Your task to perform on an android device: Clear the cart on newegg.com. Image 0: 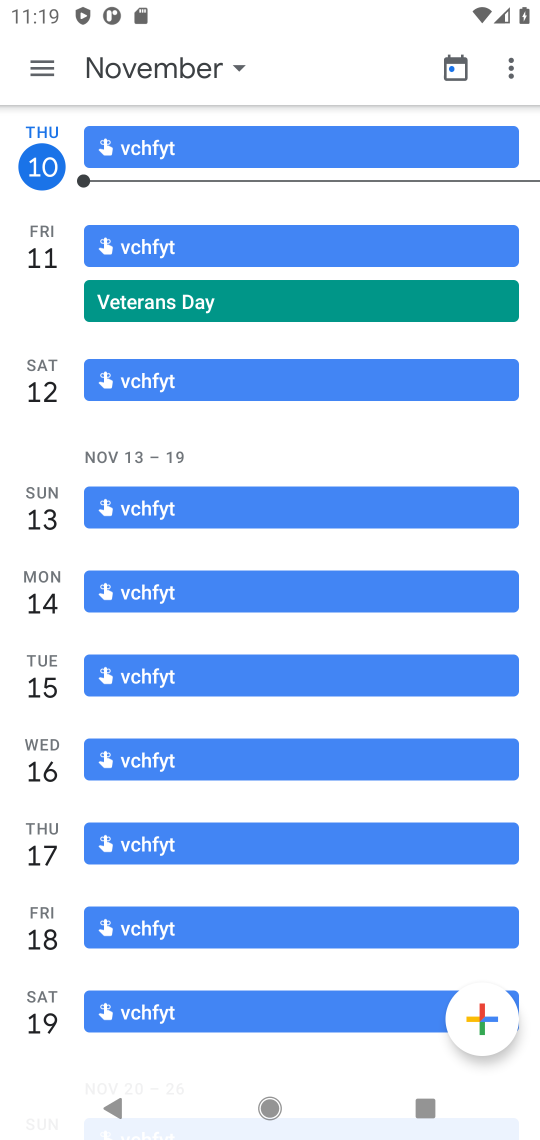
Step 0: press home button
Your task to perform on an android device: Clear the cart on newegg.com. Image 1: 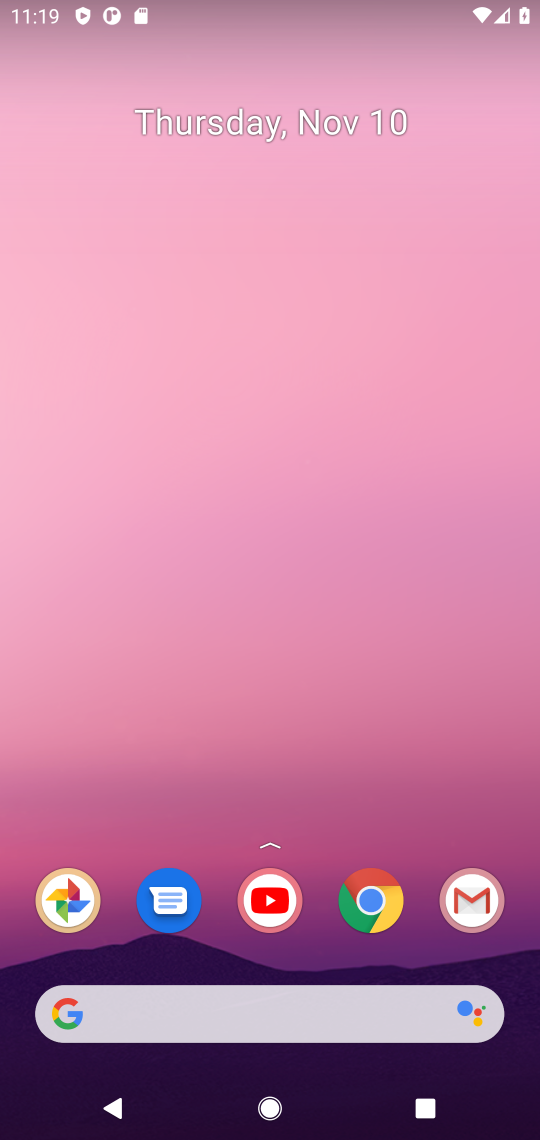
Step 1: click (367, 911)
Your task to perform on an android device: Clear the cart on newegg.com. Image 2: 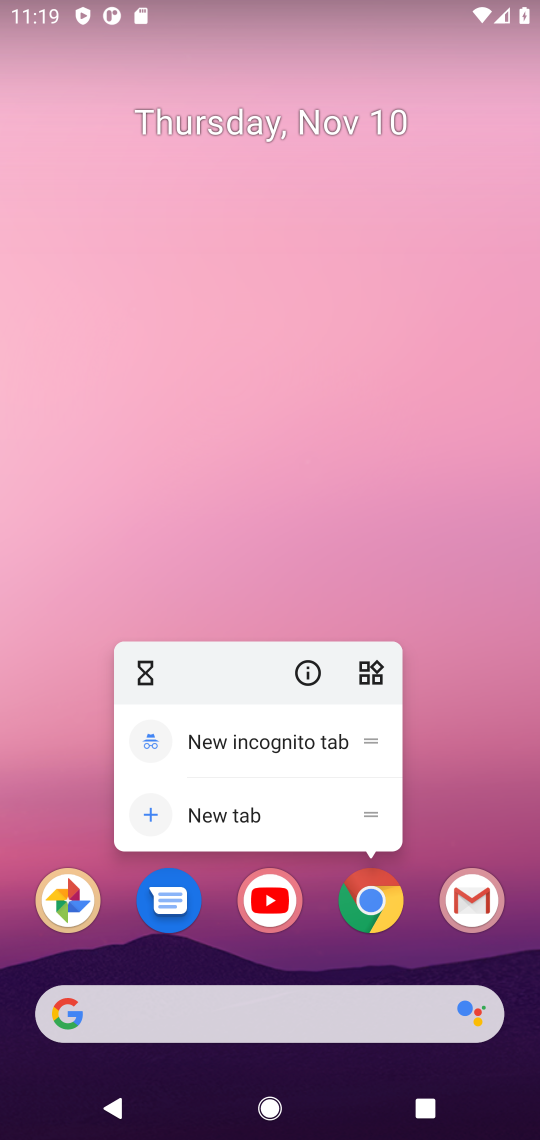
Step 2: click (367, 914)
Your task to perform on an android device: Clear the cart on newegg.com. Image 3: 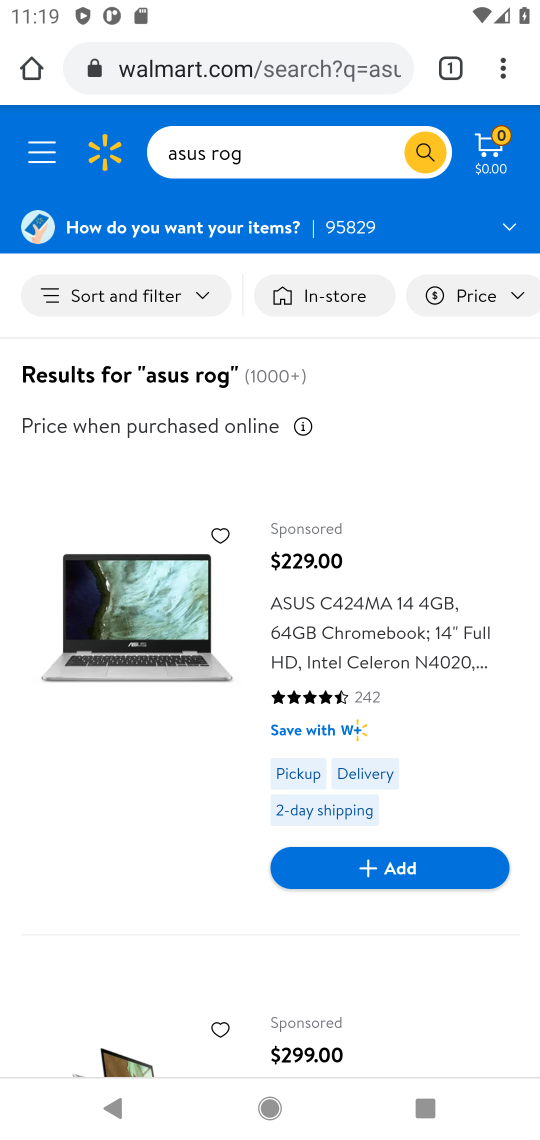
Step 3: click (280, 62)
Your task to perform on an android device: Clear the cart on newegg.com. Image 4: 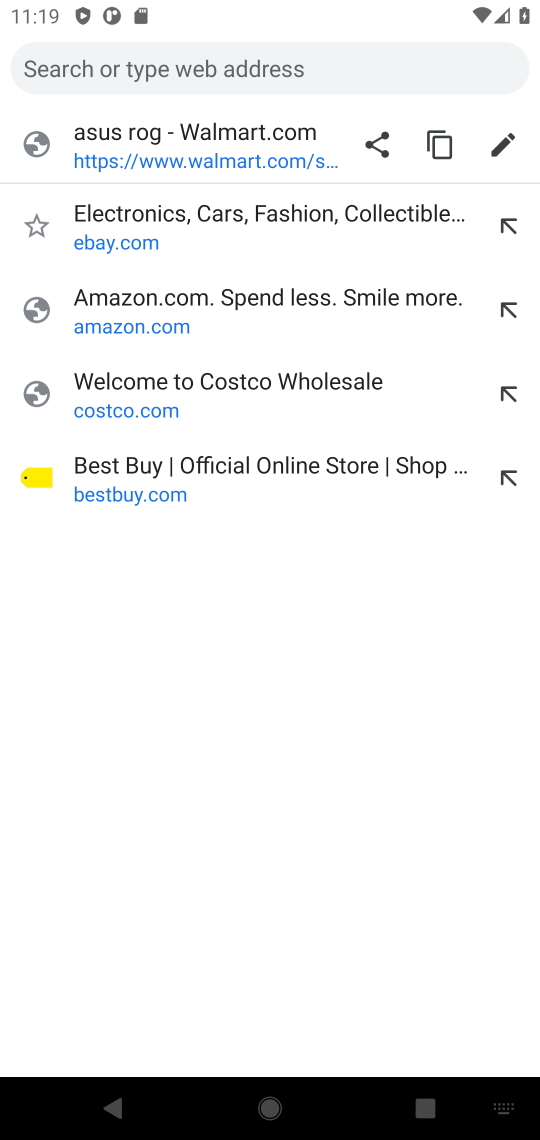
Step 4: type "newegg.com"
Your task to perform on an android device: Clear the cart on newegg.com. Image 5: 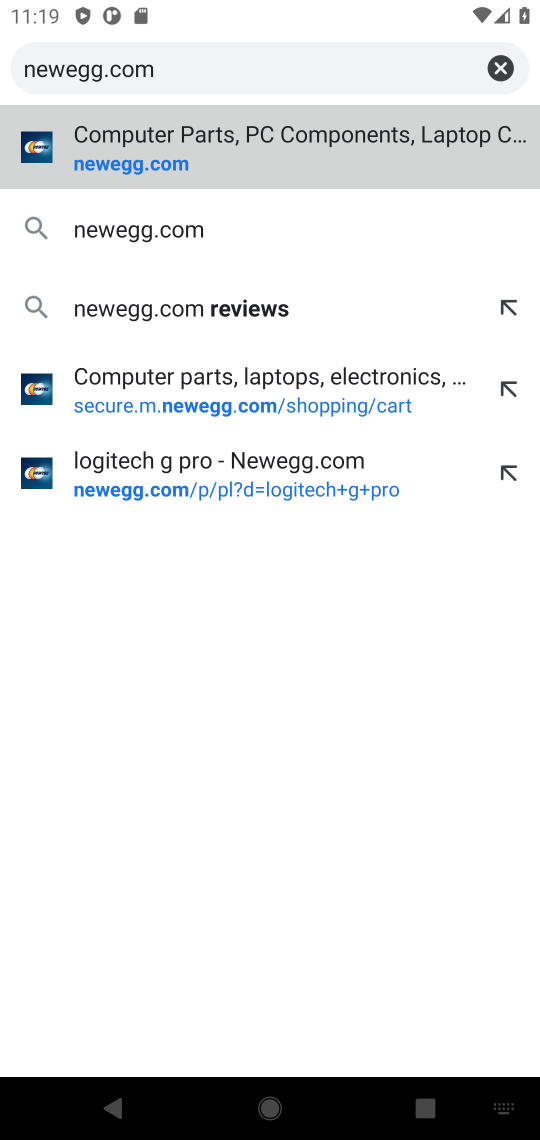
Step 5: press enter
Your task to perform on an android device: Clear the cart on newegg.com. Image 6: 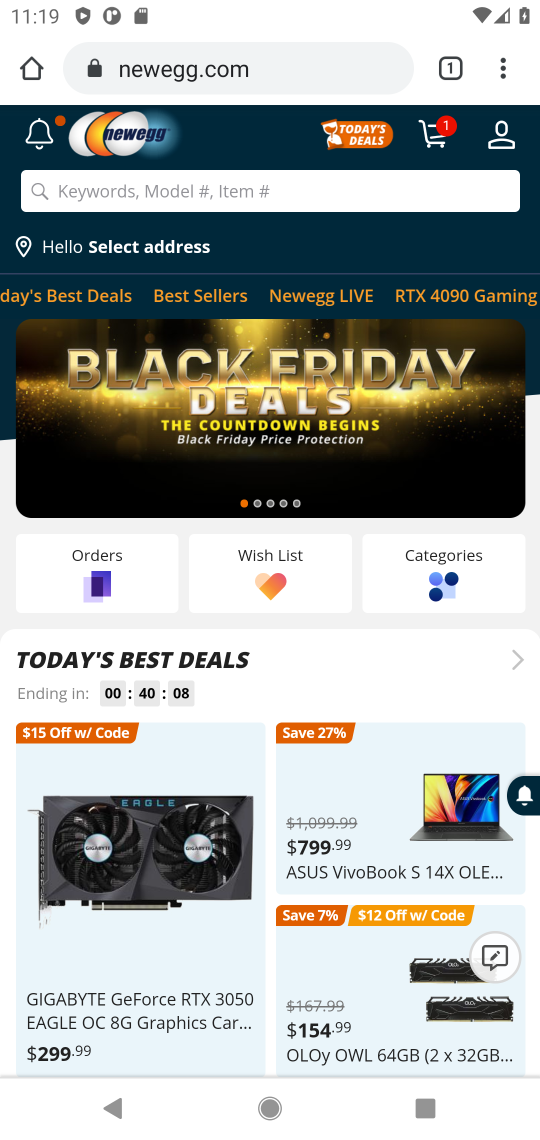
Step 6: click (445, 132)
Your task to perform on an android device: Clear the cart on newegg.com. Image 7: 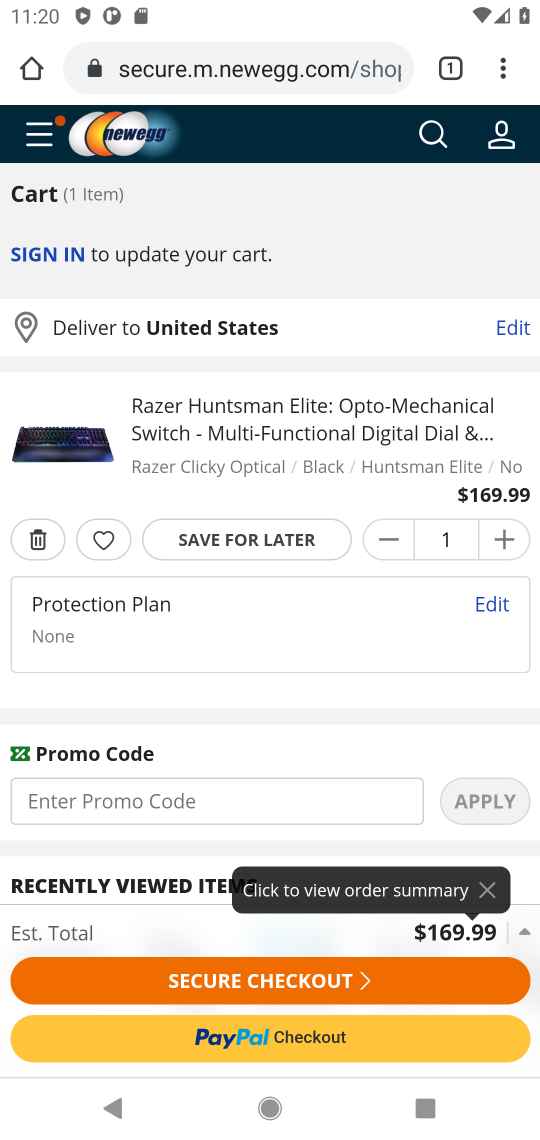
Step 7: click (41, 535)
Your task to perform on an android device: Clear the cart on newegg.com. Image 8: 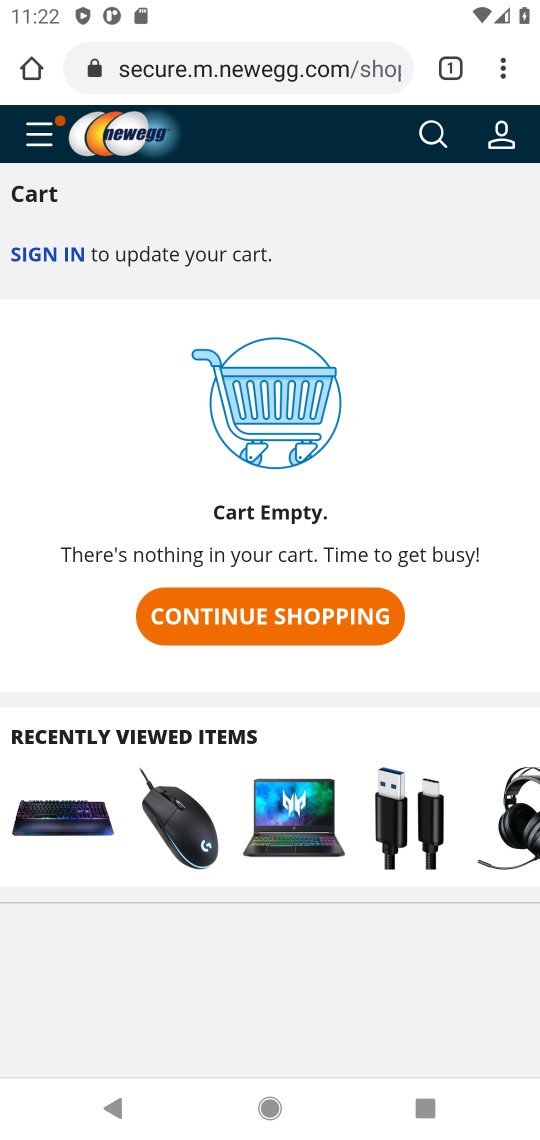
Step 8: task complete